Your task to perform on an android device: Open Chrome and go to the settings page Image 0: 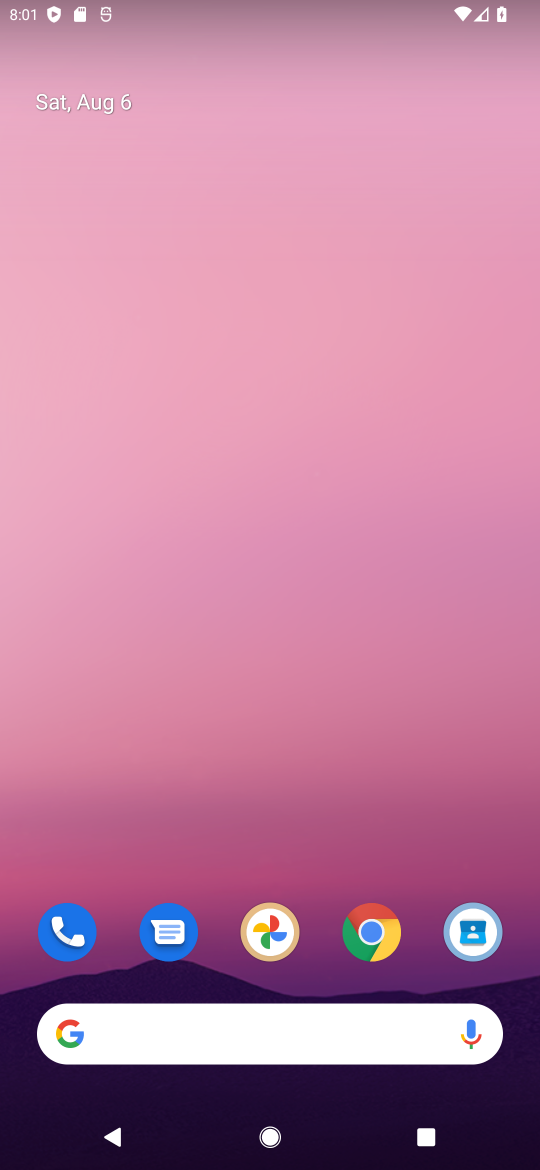
Step 0: press home button
Your task to perform on an android device: Open Chrome and go to the settings page Image 1: 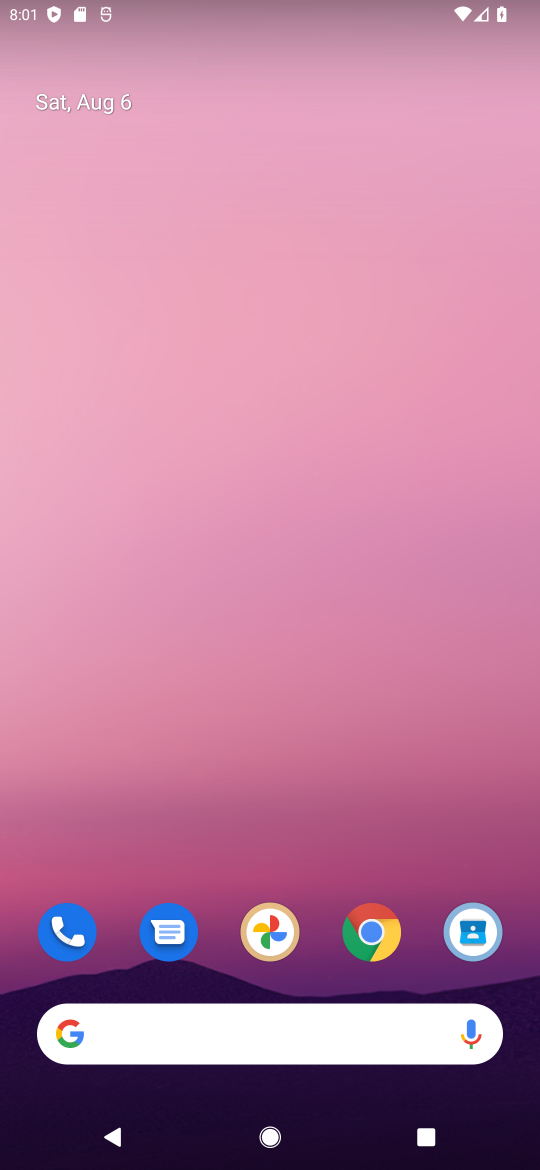
Step 1: click (371, 930)
Your task to perform on an android device: Open Chrome and go to the settings page Image 2: 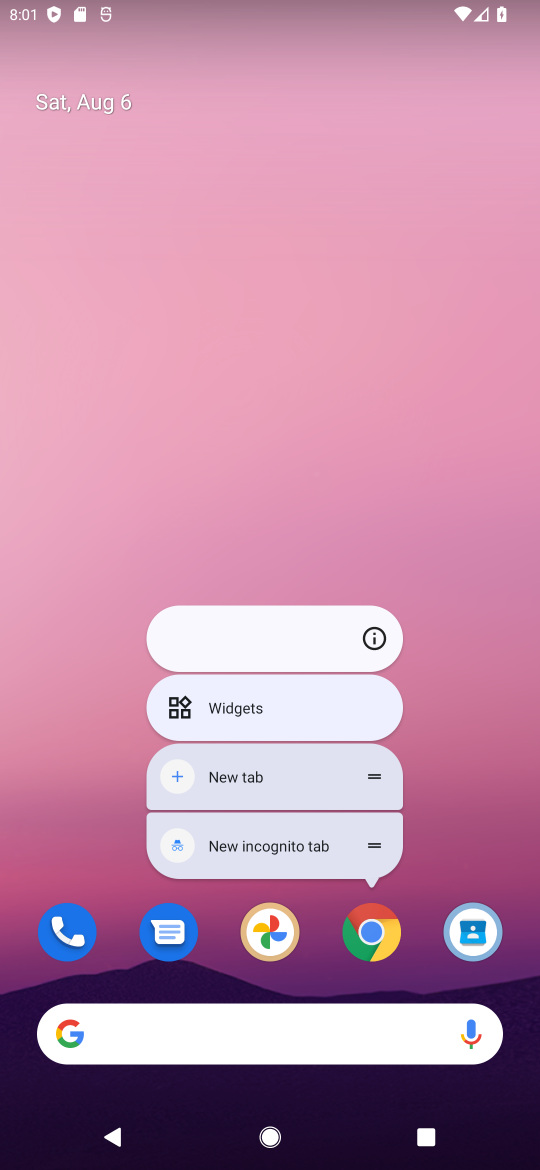
Step 2: click (371, 939)
Your task to perform on an android device: Open Chrome and go to the settings page Image 3: 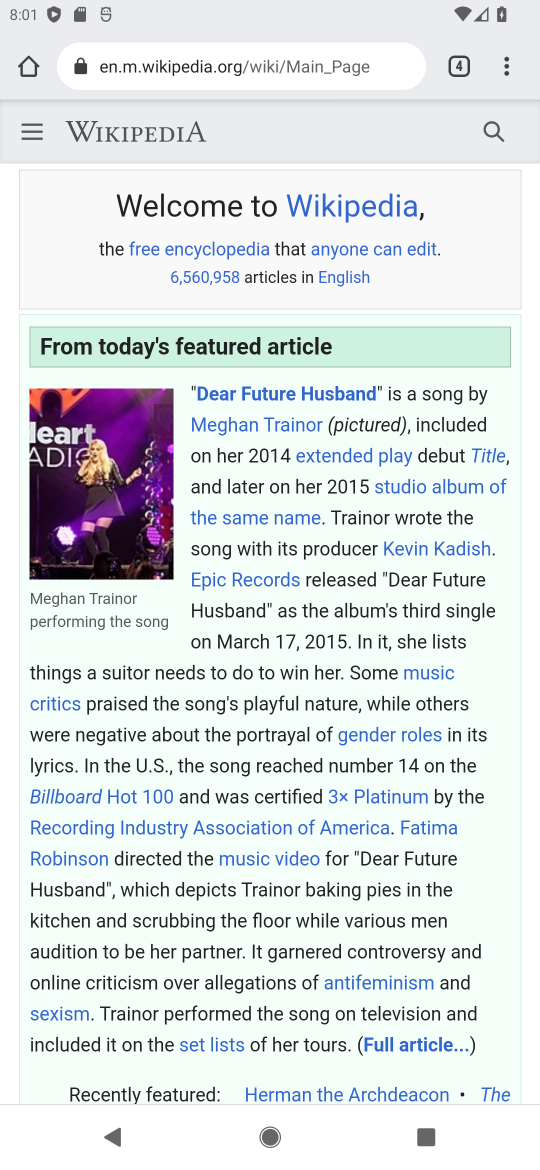
Step 3: task complete